Your task to perform on an android device: Go to battery settings Image 0: 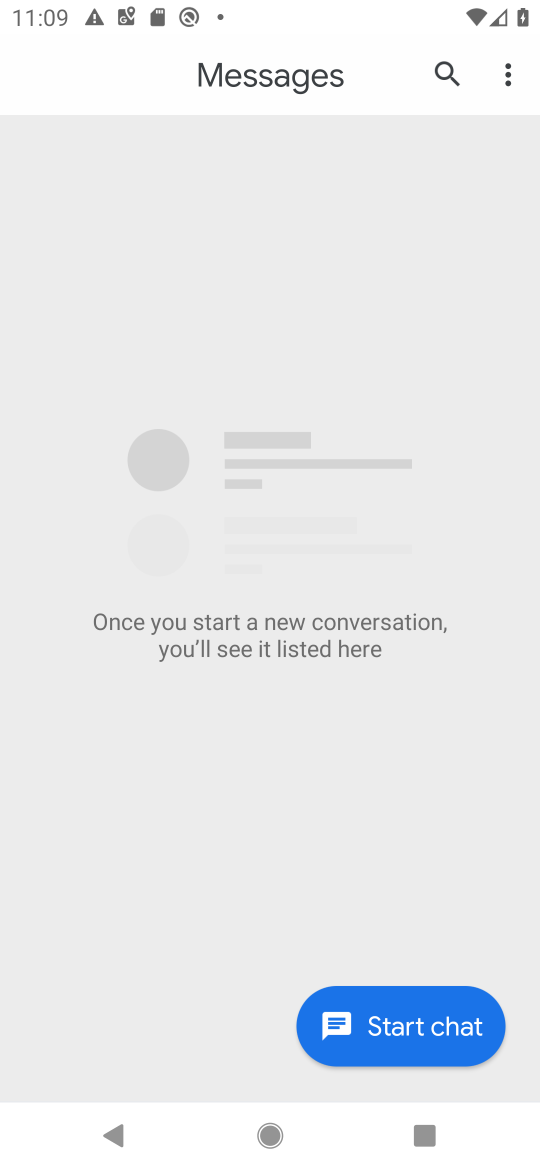
Step 0: press home button
Your task to perform on an android device: Go to battery settings Image 1: 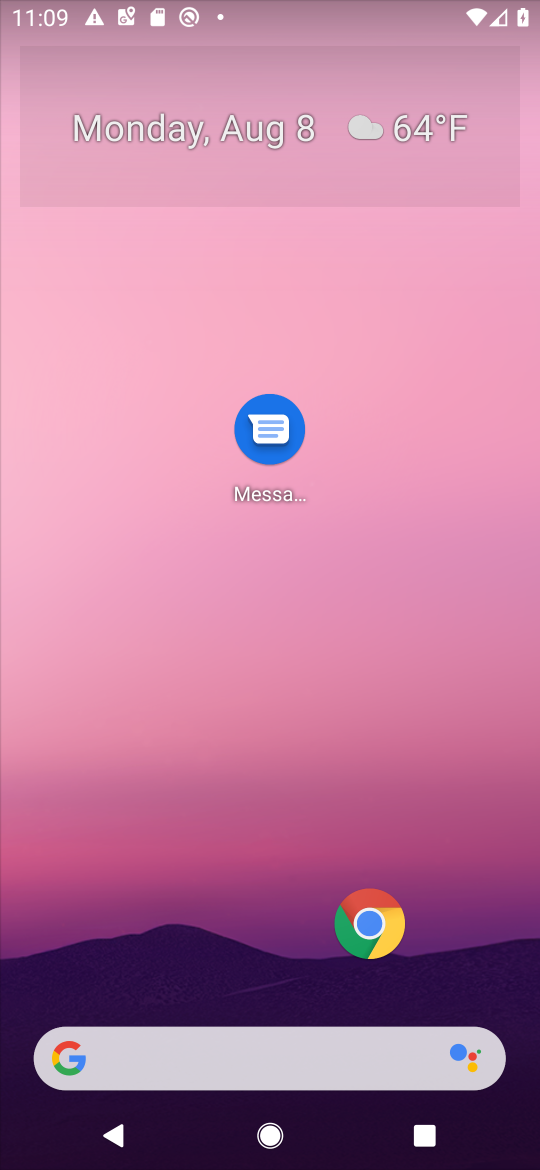
Step 1: drag from (51, 1118) to (375, 445)
Your task to perform on an android device: Go to battery settings Image 2: 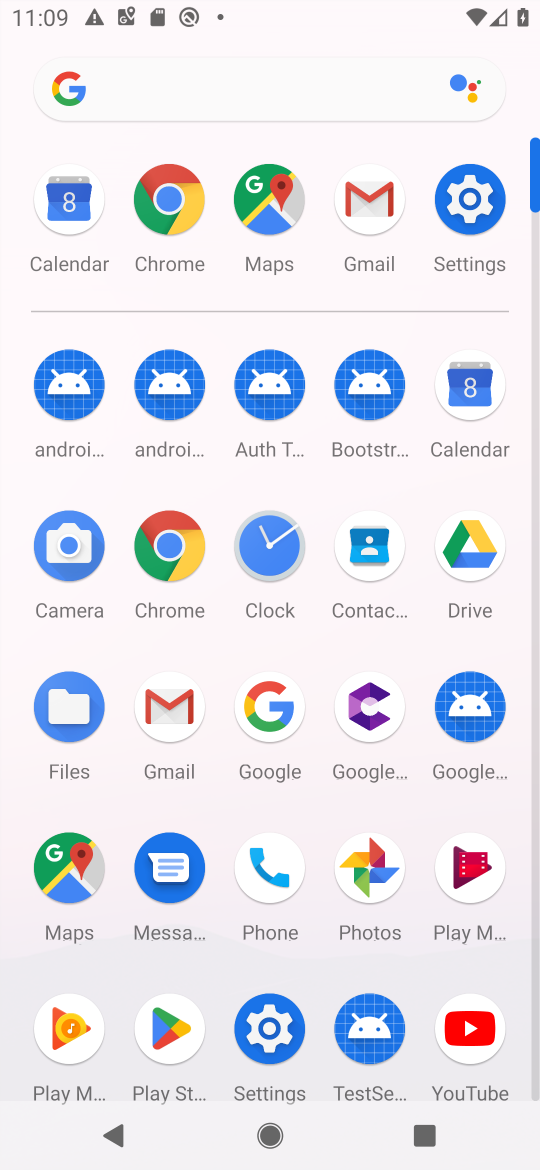
Step 2: click (456, 212)
Your task to perform on an android device: Go to battery settings Image 3: 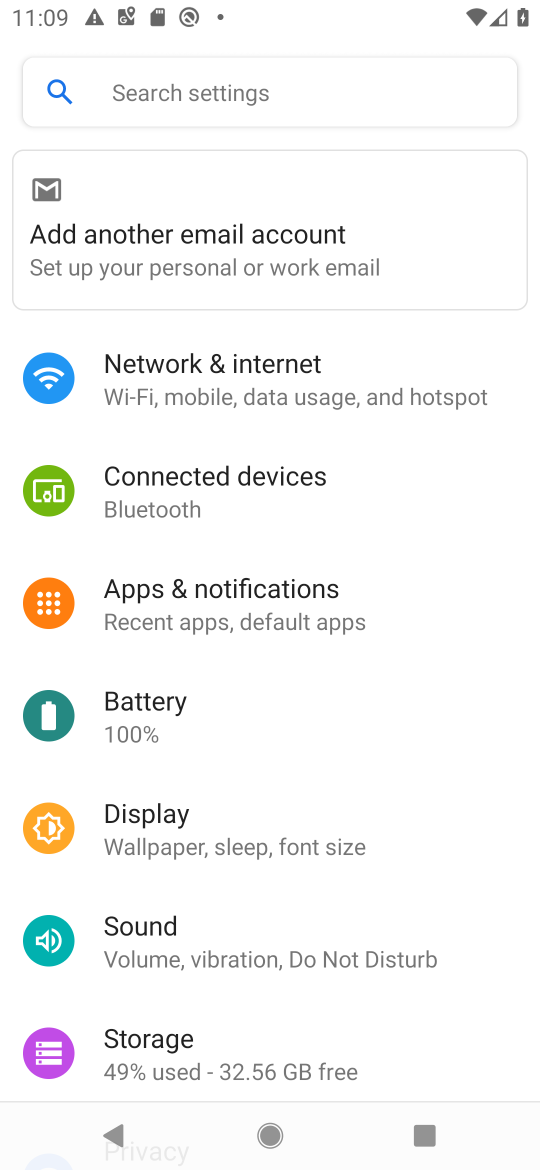
Step 3: click (168, 710)
Your task to perform on an android device: Go to battery settings Image 4: 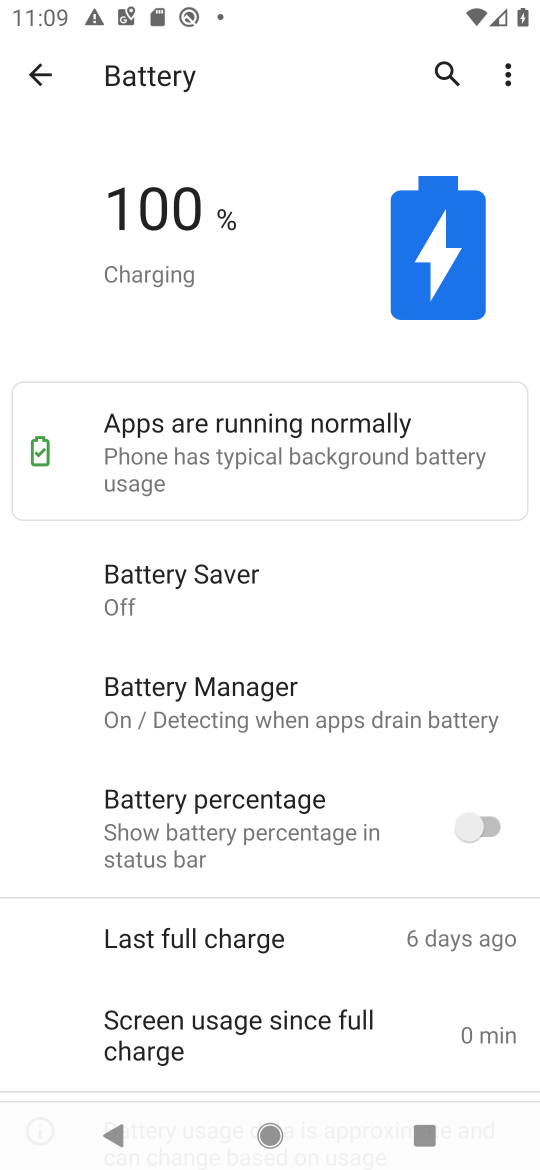
Step 4: task complete